Your task to perform on an android device: Open accessibility settings Image 0: 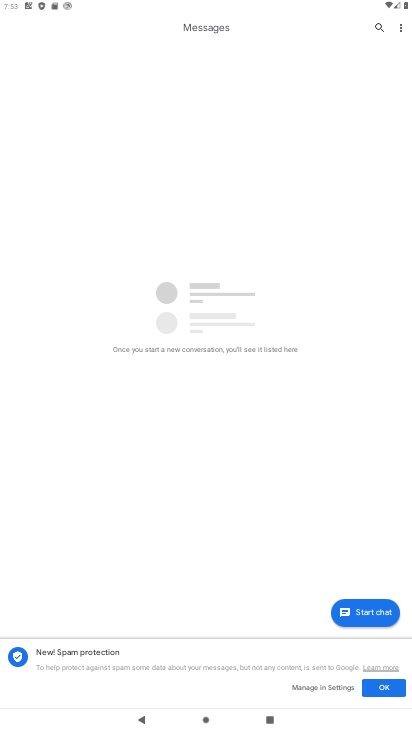
Step 0: press back button
Your task to perform on an android device: Open accessibility settings Image 1: 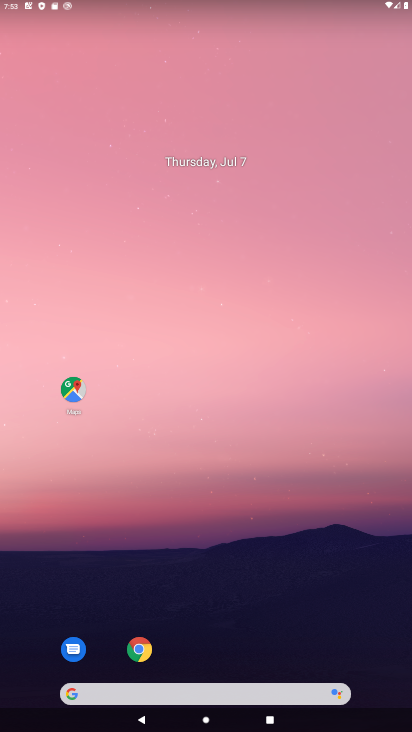
Step 1: drag from (255, 659) to (114, 90)
Your task to perform on an android device: Open accessibility settings Image 2: 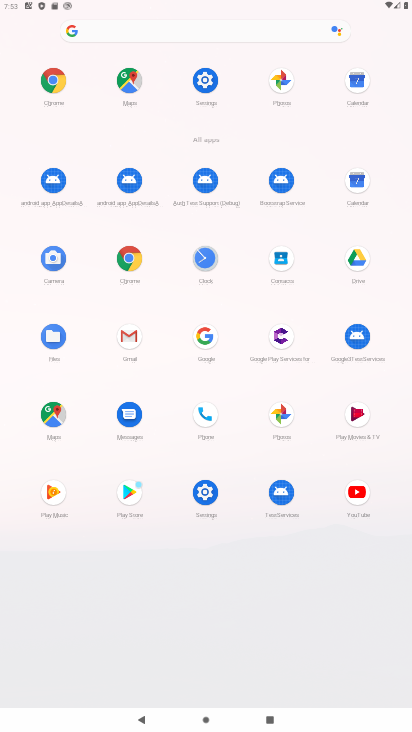
Step 2: click (207, 501)
Your task to perform on an android device: Open accessibility settings Image 3: 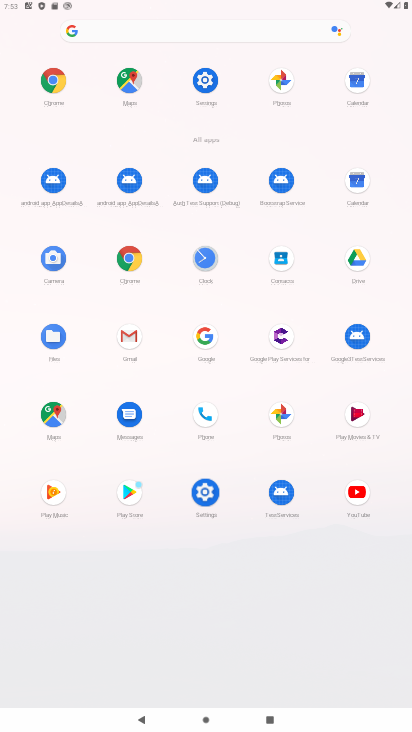
Step 3: click (208, 501)
Your task to perform on an android device: Open accessibility settings Image 4: 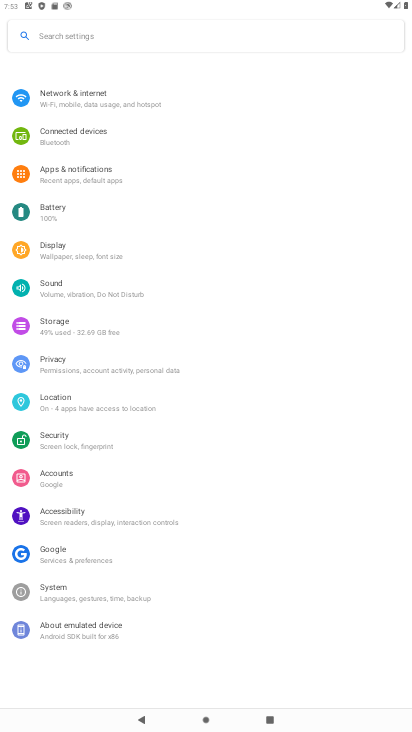
Step 4: click (210, 503)
Your task to perform on an android device: Open accessibility settings Image 5: 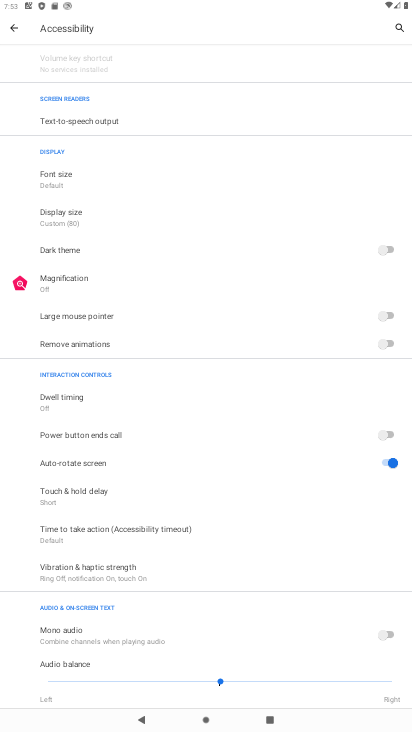
Step 5: click (5, 17)
Your task to perform on an android device: Open accessibility settings Image 6: 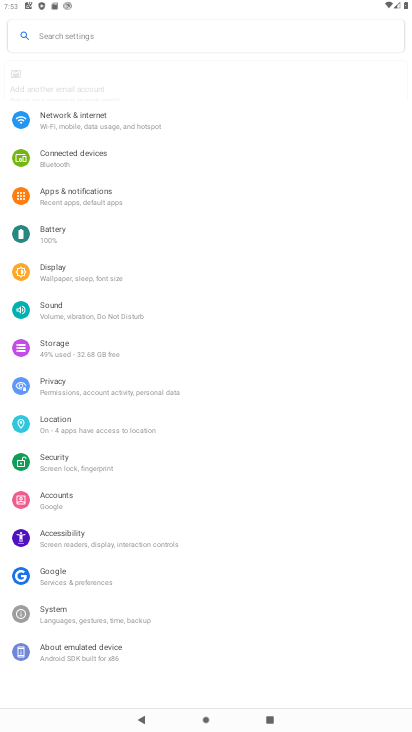
Step 6: task complete